Your task to perform on an android device: toggle javascript in the chrome app Image 0: 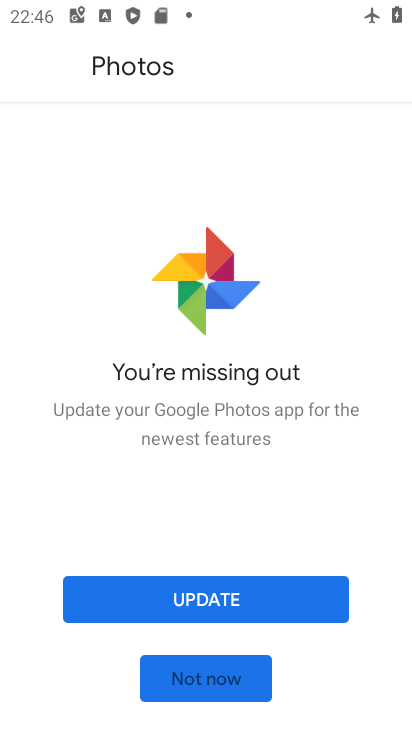
Step 0: press home button
Your task to perform on an android device: toggle javascript in the chrome app Image 1: 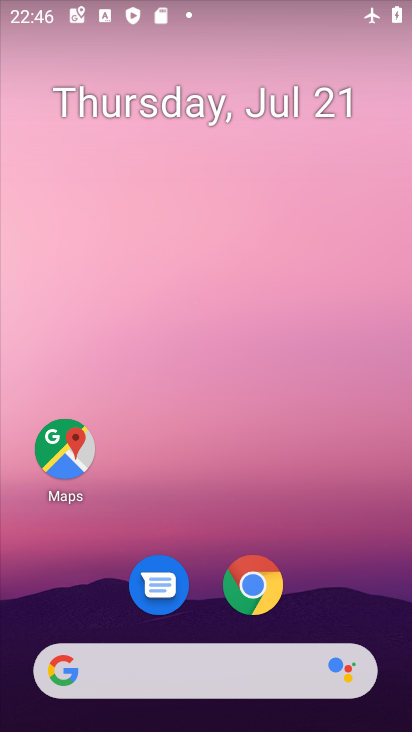
Step 1: click (259, 582)
Your task to perform on an android device: toggle javascript in the chrome app Image 2: 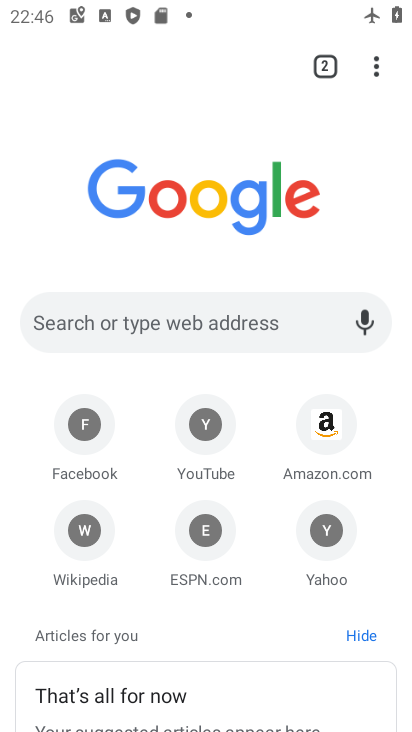
Step 2: click (376, 69)
Your task to perform on an android device: toggle javascript in the chrome app Image 3: 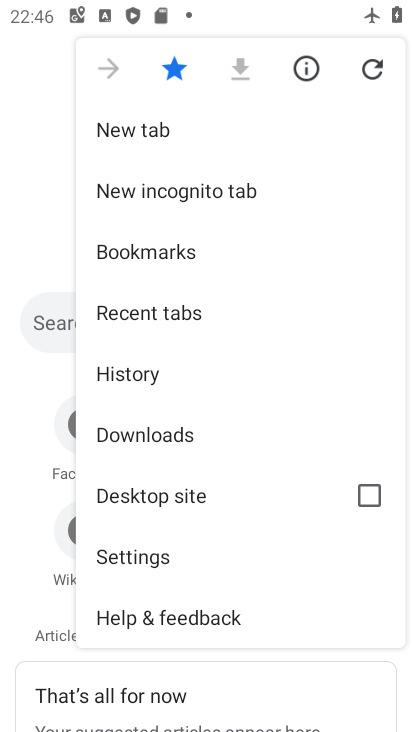
Step 3: click (148, 554)
Your task to perform on an android device: toggle javascript in the chrome app Image 4: 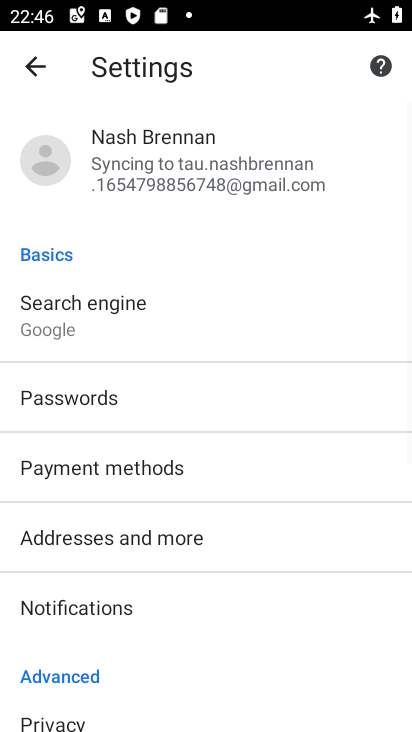
Step 4: drag from (264, 521) to (300, 122)
Your task to perform on an android device: toggle javascript in the chrome app Image 5: 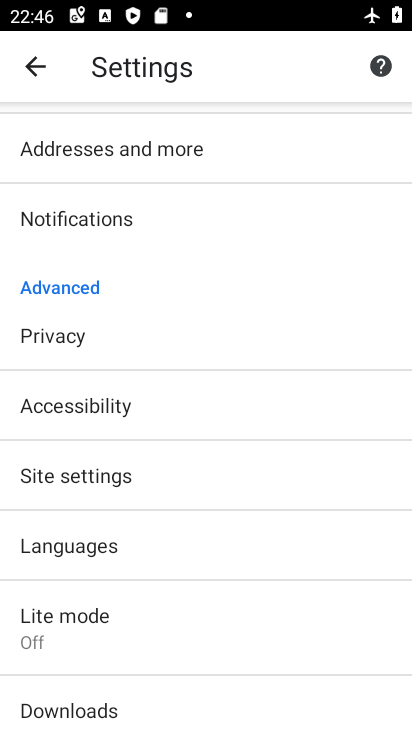
Step 5: click (122, 475)
Your task to perform on an android device: toggle javascript in the chrome app Image 6: 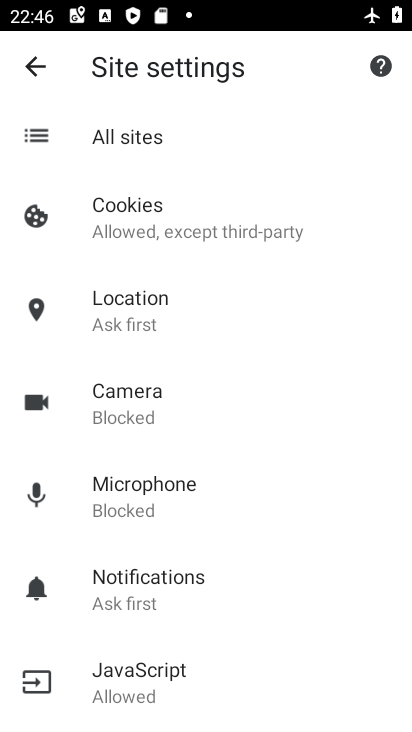
Step 6: click (151, 687)
Your task to perform on an android device: toggle javascript in the chrome app Image 7: 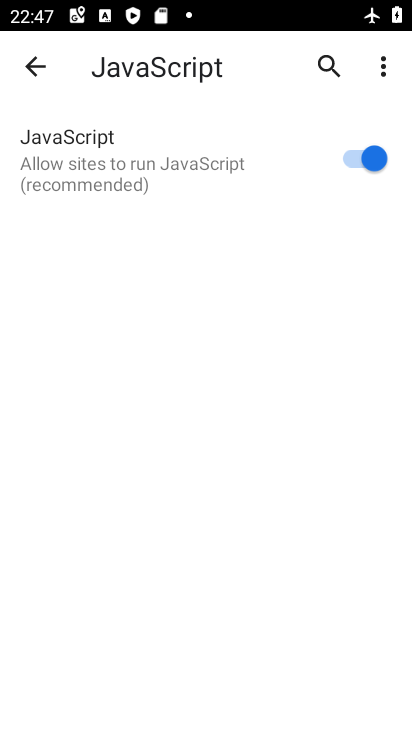
Step 7: click (362, 159)
Your task to perform on an android device: toggle javascript in the chrome app Image 8: 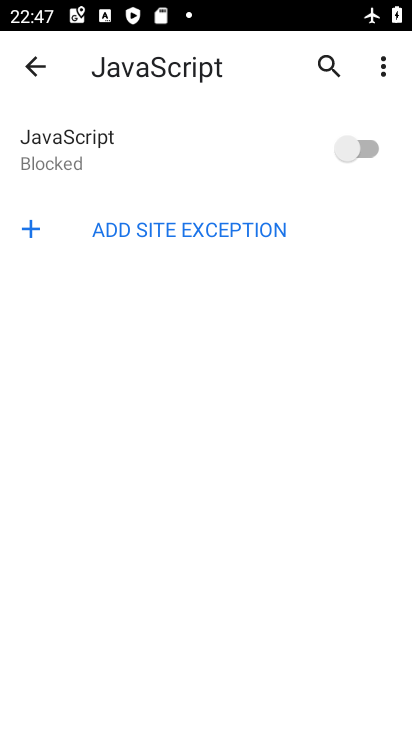
Step 8: task complete